Your task to perform on an android device: Is it going to rain this weekend? Image 0: 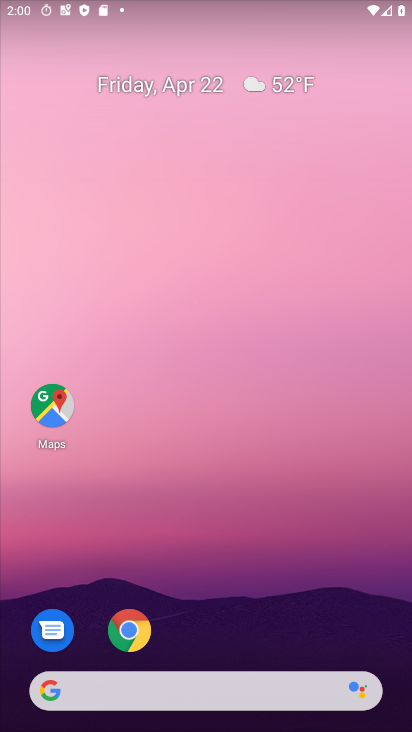
Step 0: click (309, 117)
Your task to perform on an android device: Is it going to rain this weekend? Image 1: 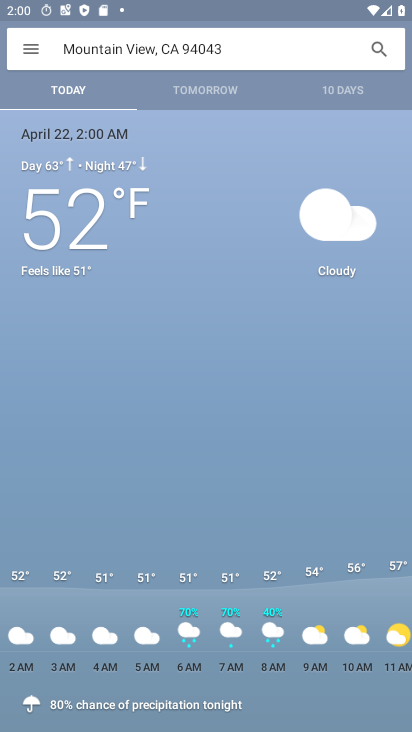
Step 1: click (322, 87)
Your task to perform on an android device: Is it going to rain this weekend? Image 2: 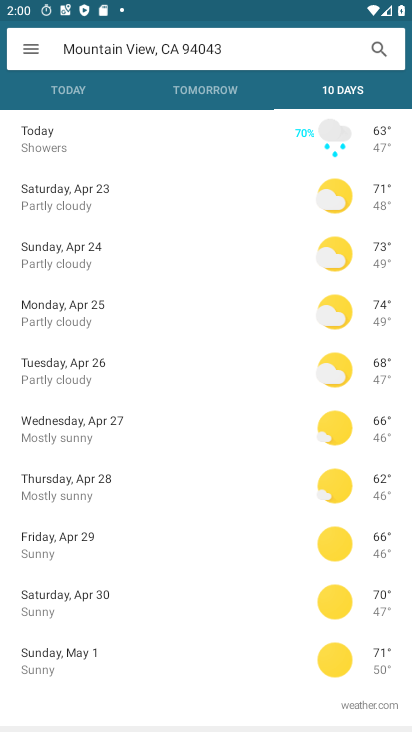
Step 2: task complete